Your task to perform on an android device: check storage Image 0: 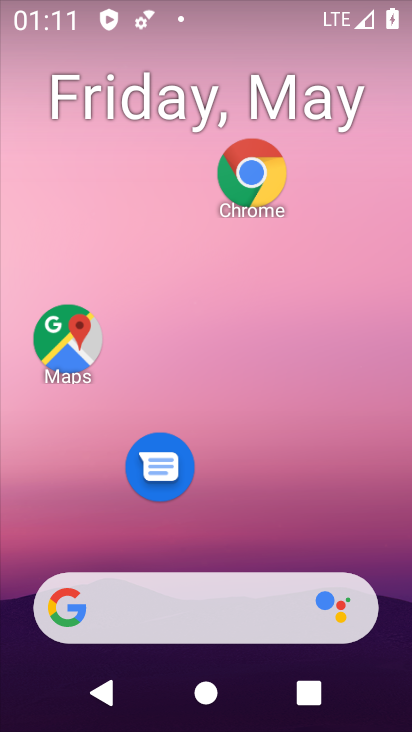
Step 0: drag from (286, 664) to (135, 44)
Your task to perform on an android device: check storage Image 1: 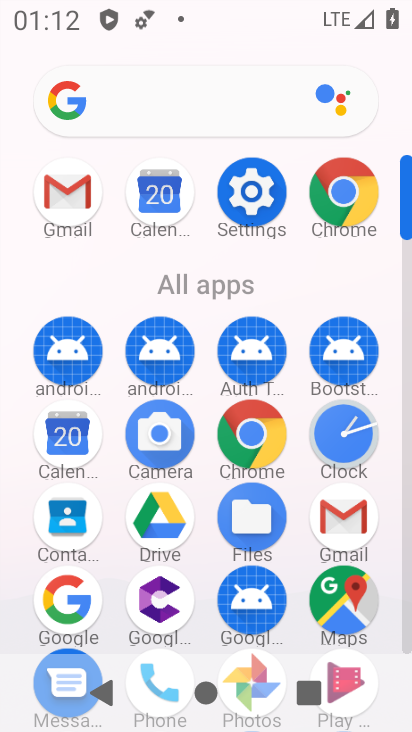
Step 1: click (254, 207)
Your task to perform on an android device: check storage Image 2: 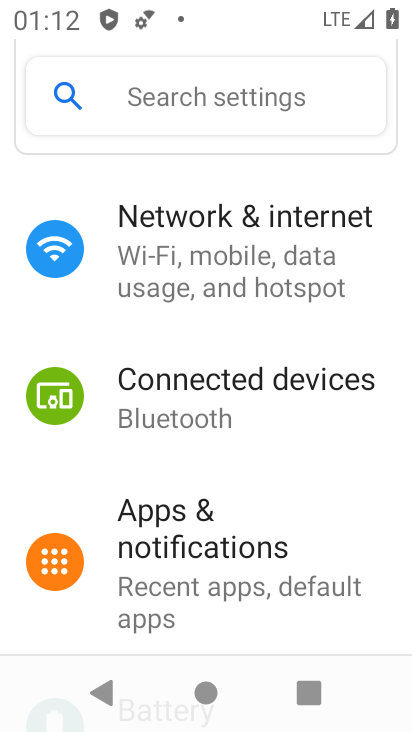
Step 2: click (192, 106)
Your task to perform on an android device: check storage Image 3: 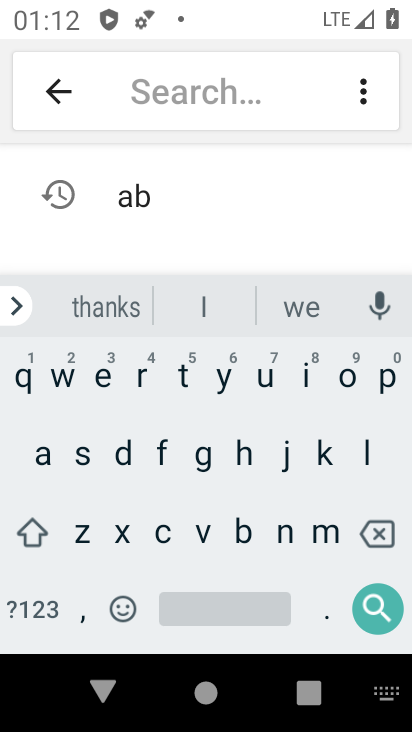
Step 3: click (85, 445)
Your task to perform on an android device: check storage Image 4: 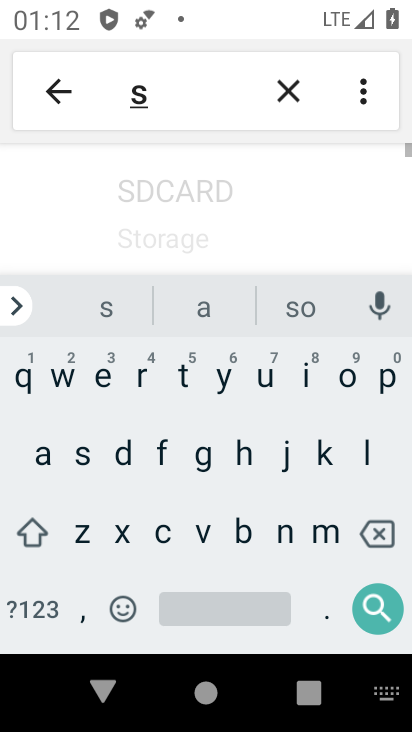
Step 4: click (181, 381)
Your task to perform on an android device: check storage Image 5: 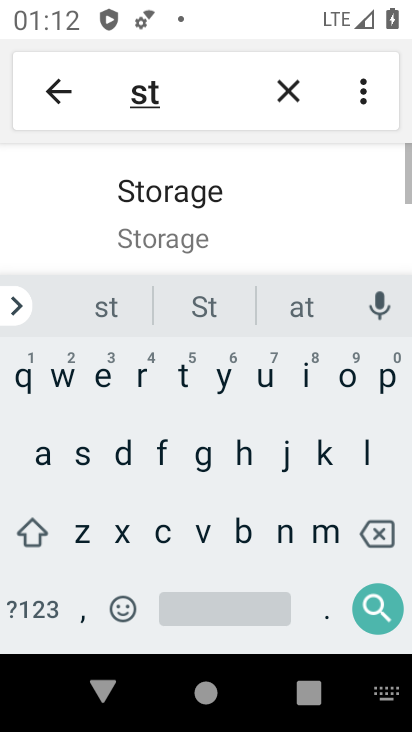
Step 5: click (168, 196)
Your task to perform on an android device: check storage Image 6: 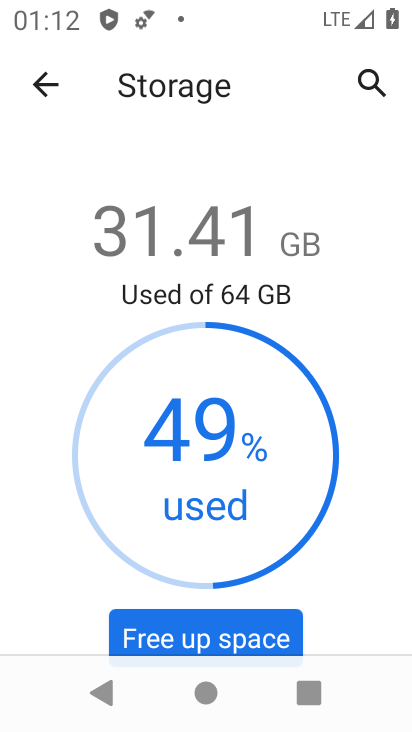
Step 6: task complete